Your task to perform on an android device: Go to eBay Image 0: 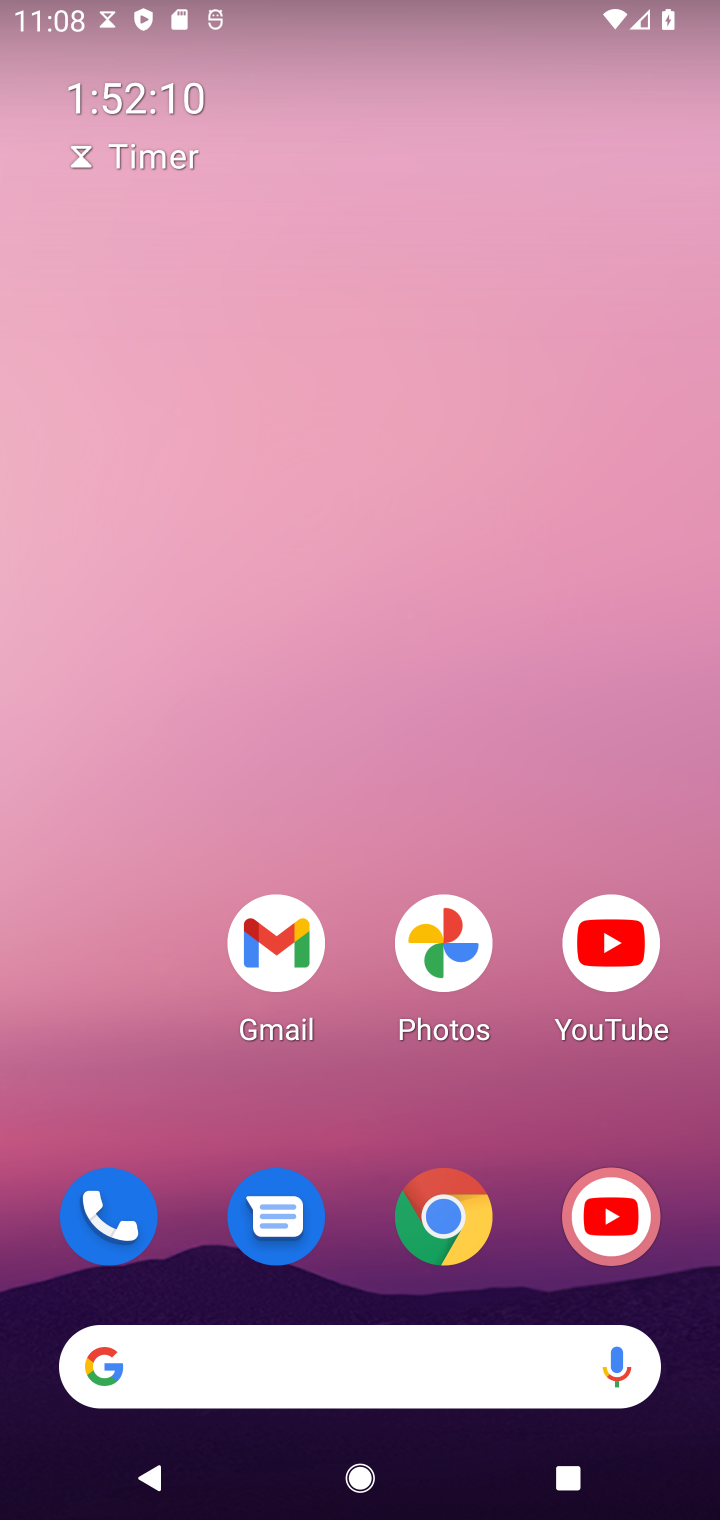
Step 0: click (448, 1223)
Your task to perform on an android device: Go to eBay Image 1: 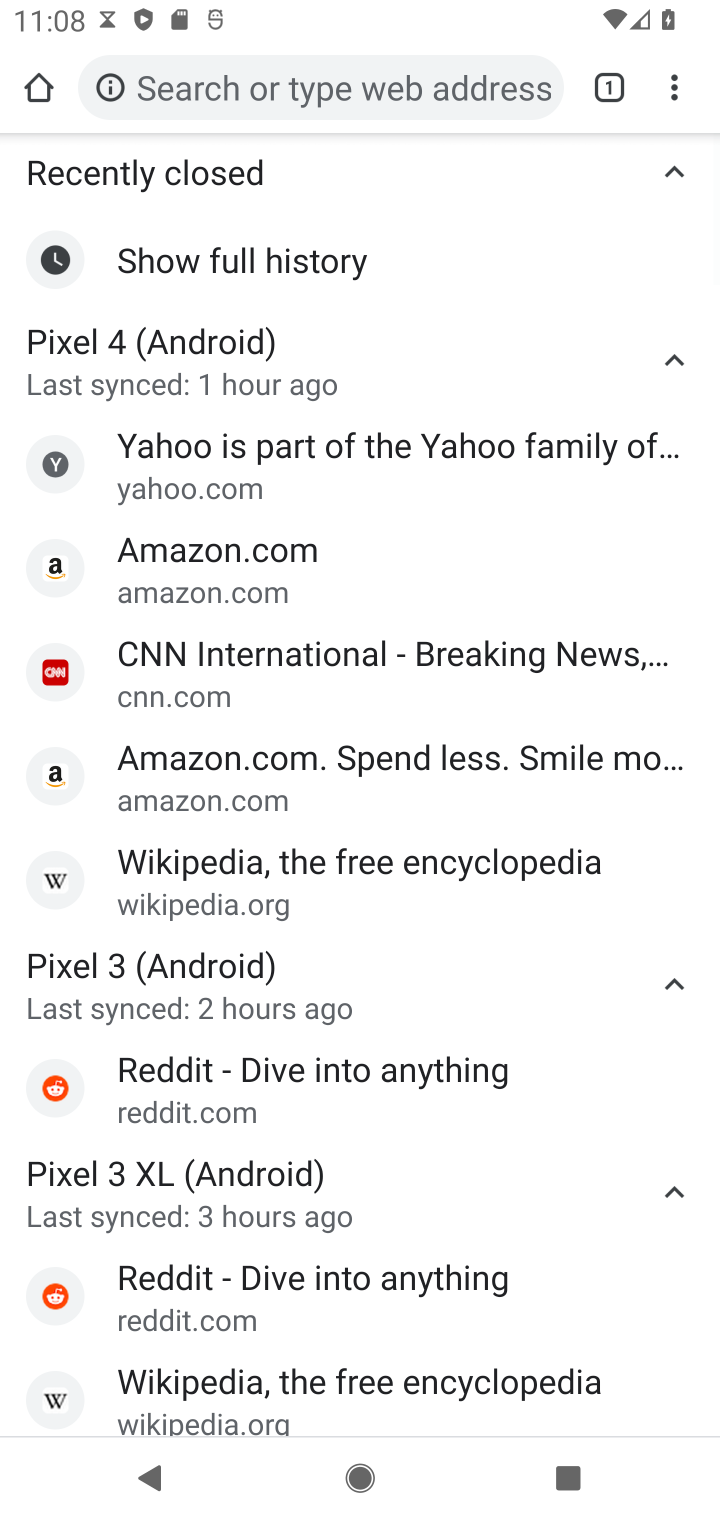
Step 1: click (594, 72)
Your task to perform on an android device: Go to eBay Image 2: 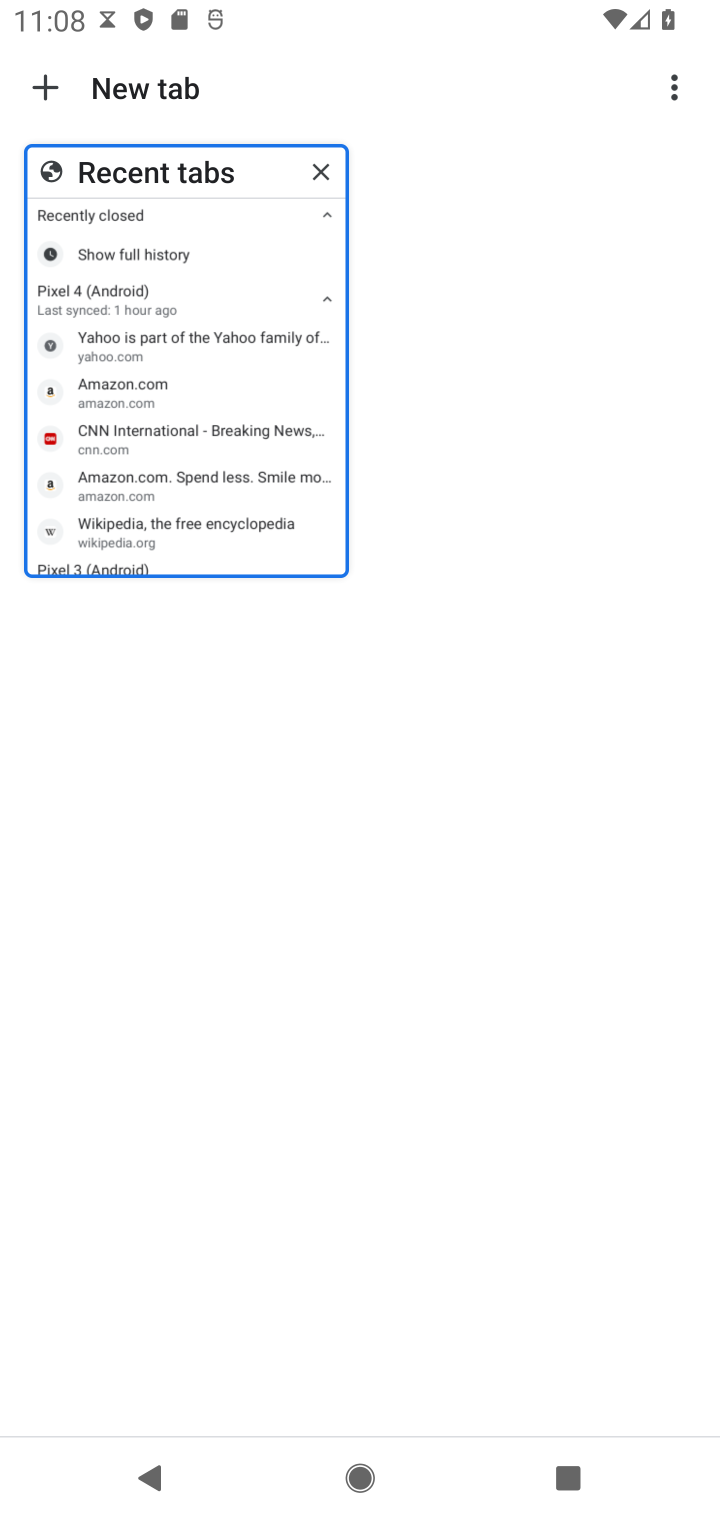
Step 2: click (46, 64)
Your task to perform on an android device: Go to eBay Image 3: 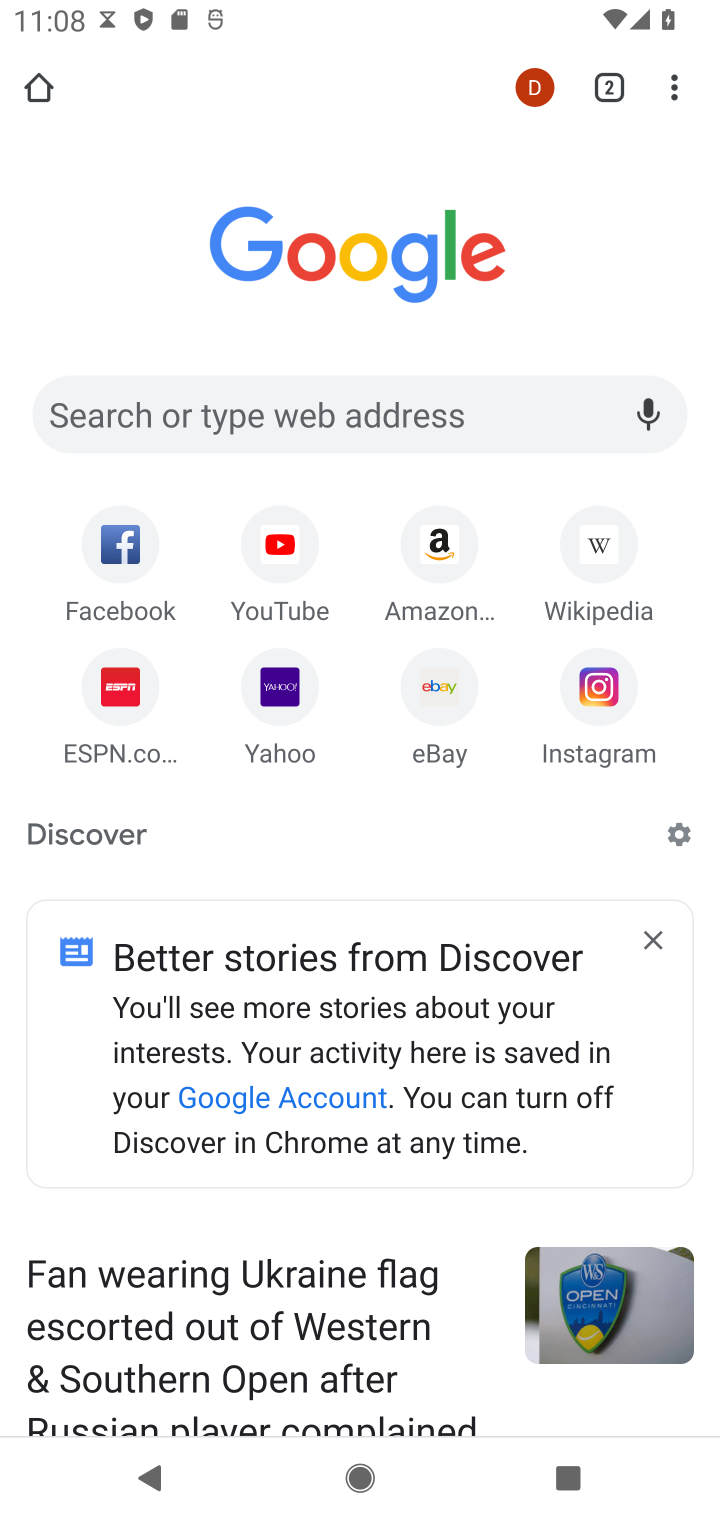
Step 3: click (428, 683)
Your task to perform on an android device: Go to eBay Image 4: 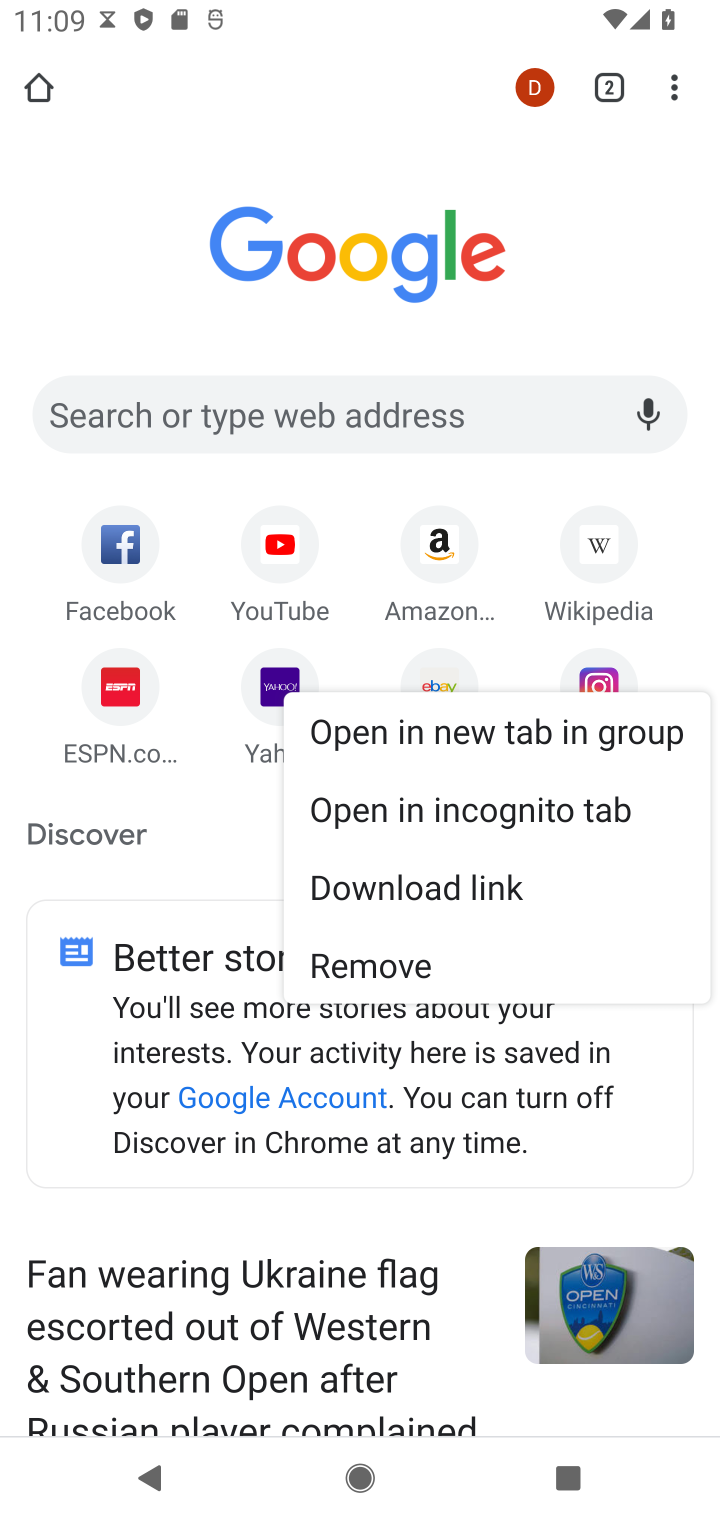
Step 4: click (437, 661)
Your task to perform on an android device: Go to eBay Image 5: 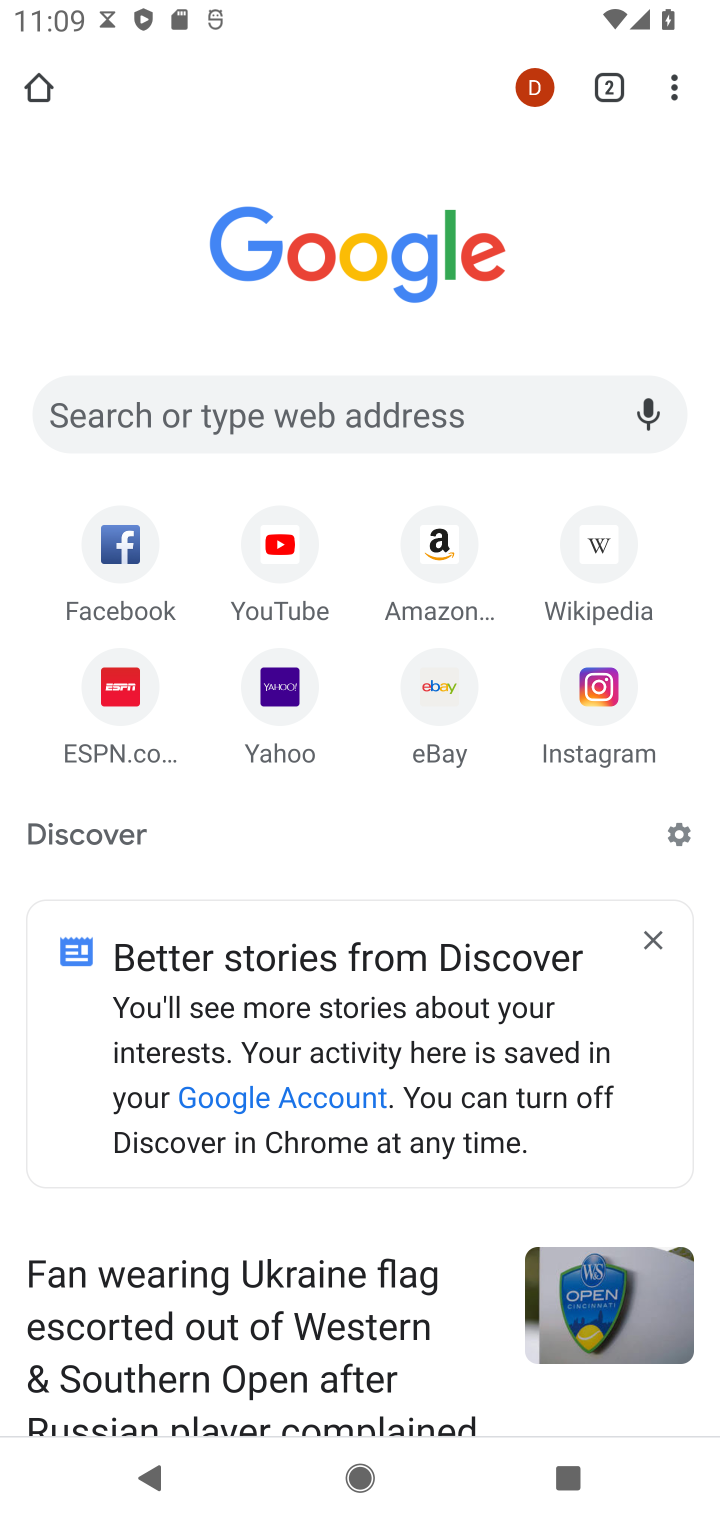
Step 5: click (435, 688)
Your task to perform on an android device: Go to eBay Image 6: 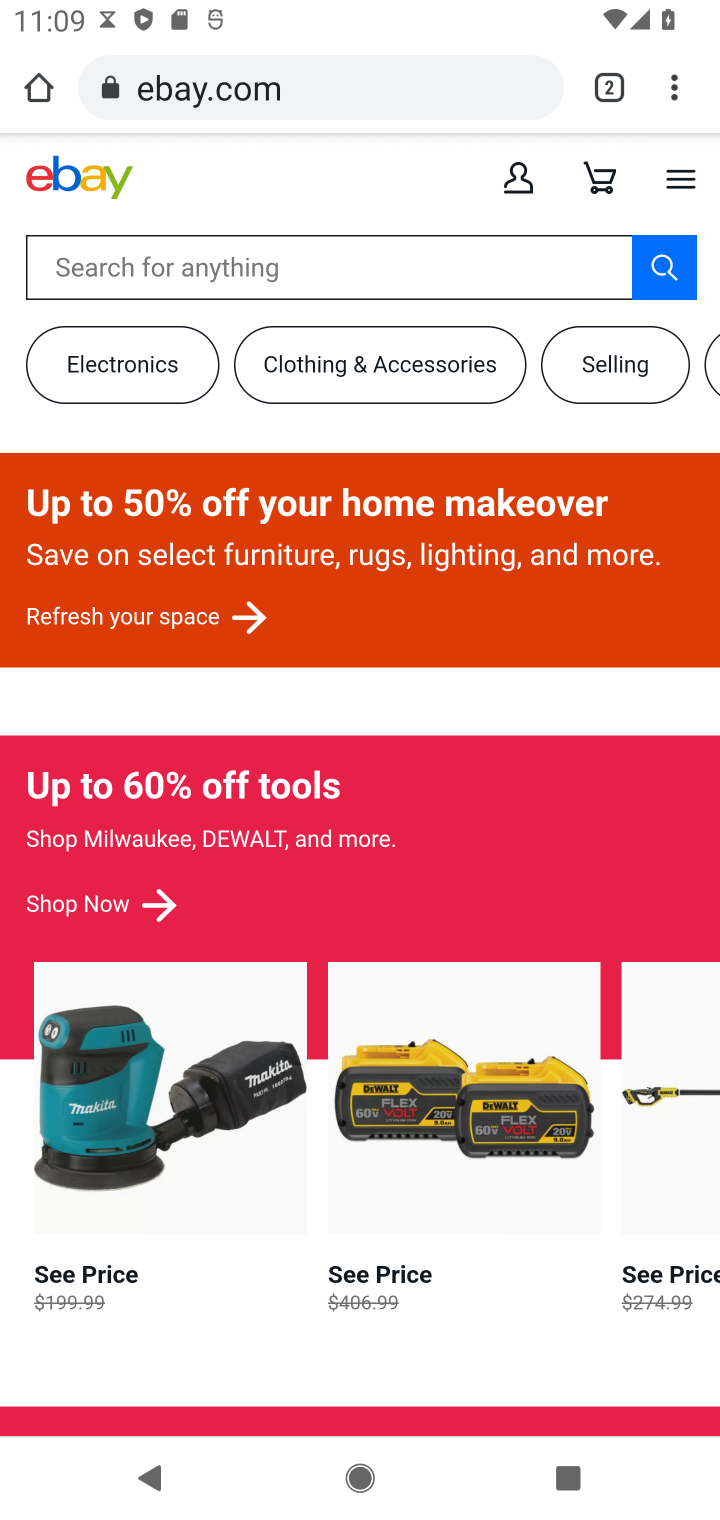
Step 6: task complete